Your task to perform on an android device: Search for vegetarian restaurants on Maps Image 0: 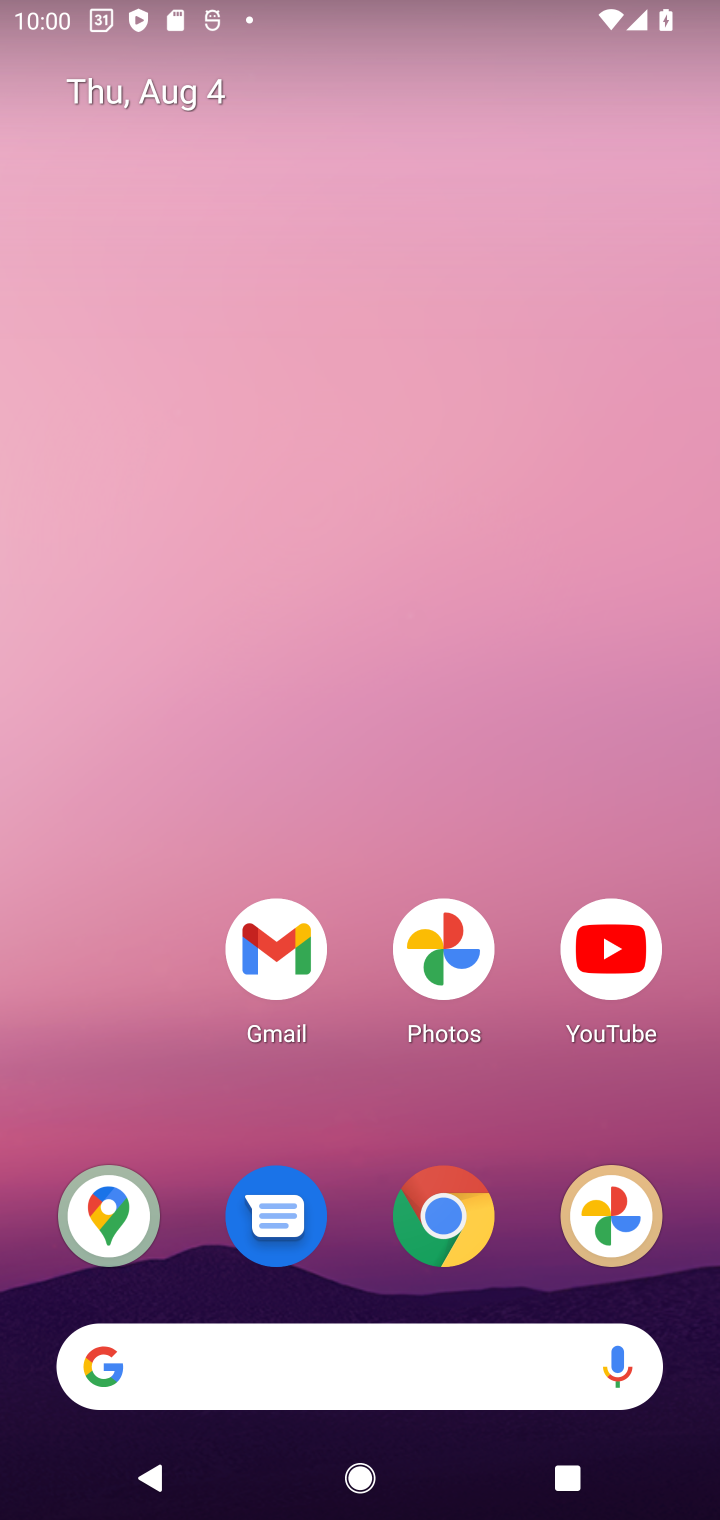
Step 0: click (105, 1217)
Your task to perform on an android device: Search for vegetarian restaurants on Maps Image 1: 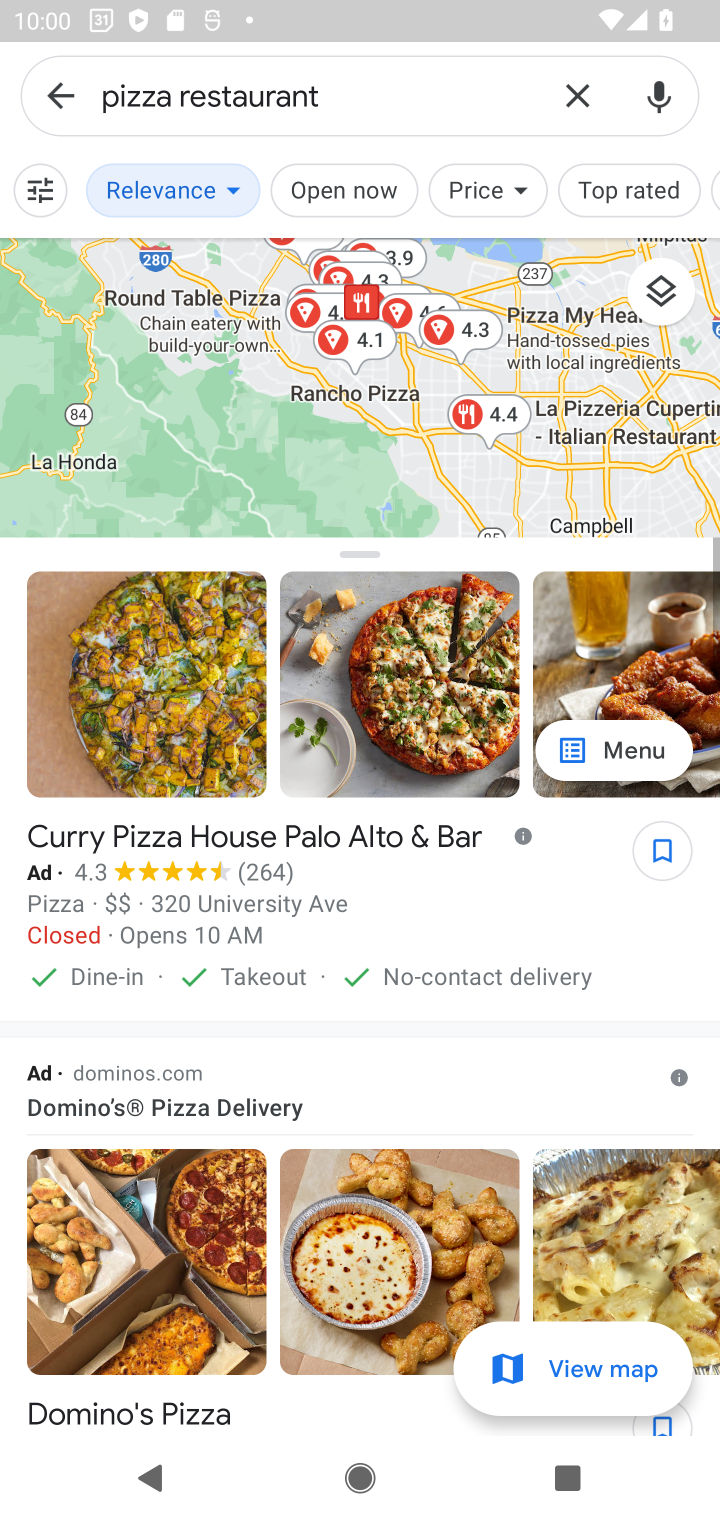
Step 1: click (573, 90)
Your task to perform on an android device: Search for vegetarian restaurants on Maps Image 2: 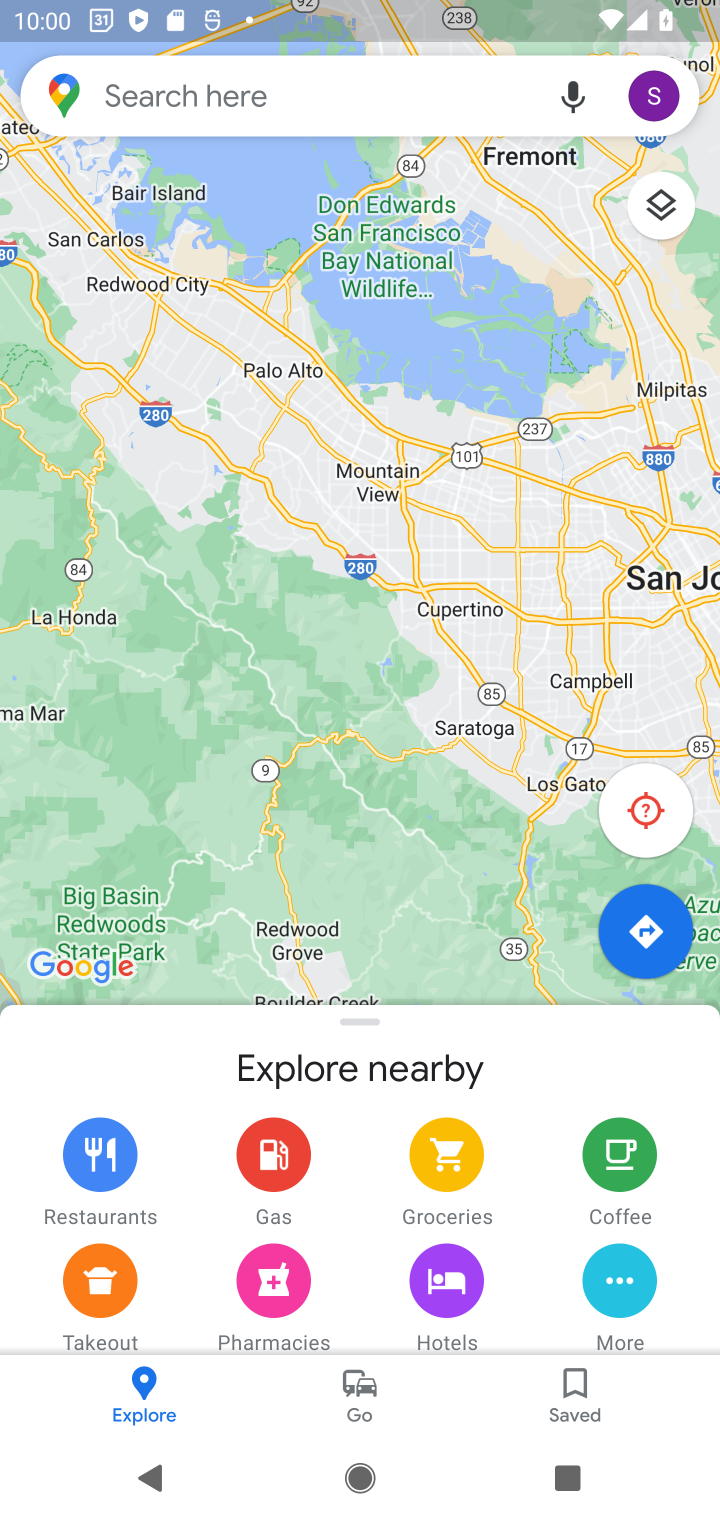
Step 2: click (299, 102)
Your task to perform on an android device: Search for vegetarian restaurants on Maps Image 3: 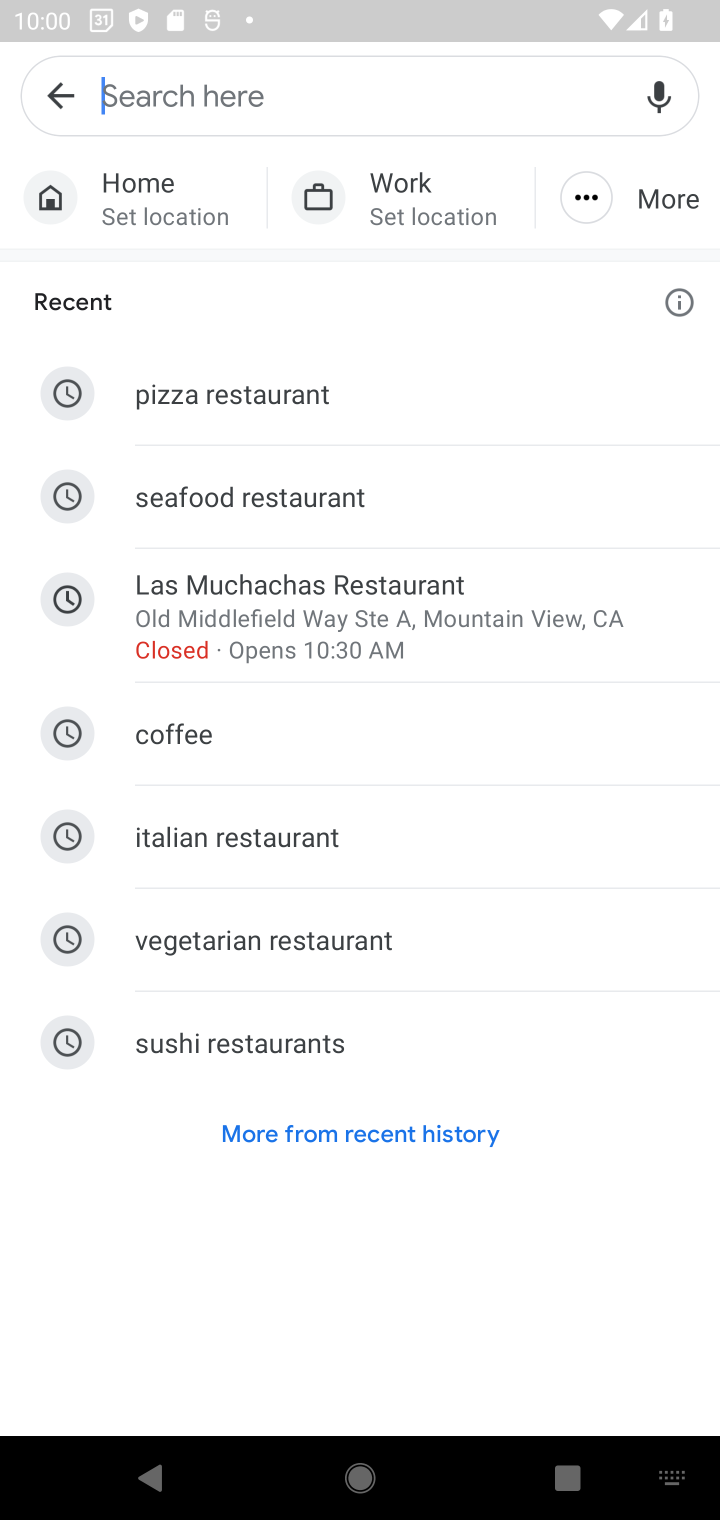
Step 3: type "vegetarian restaurants"
Your task to perform on an android device: Search for vegetarian restaurants on Maps Image 4: 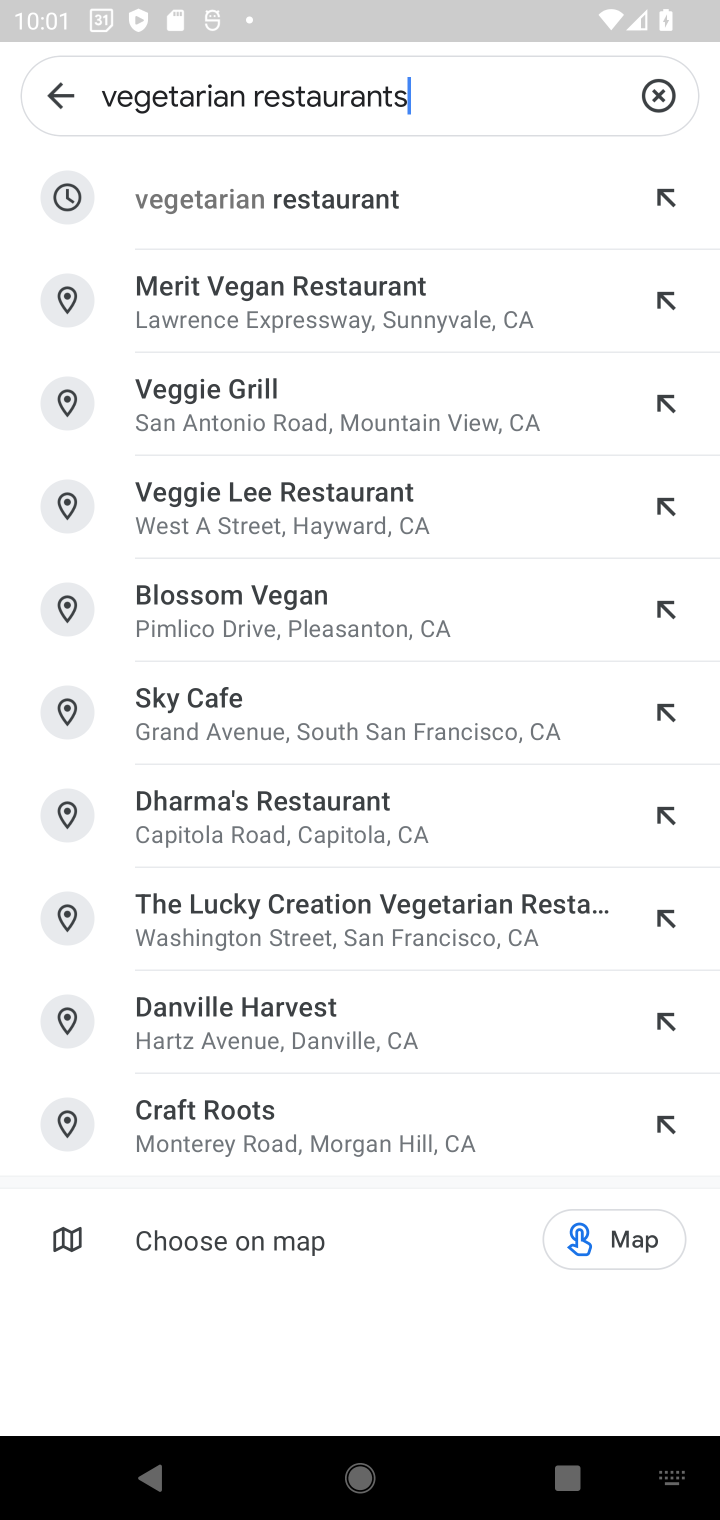
Step 4: click (326, 207)
Your task to perform on an android device: Search for vegetarian restaurants on Maps Image 5: 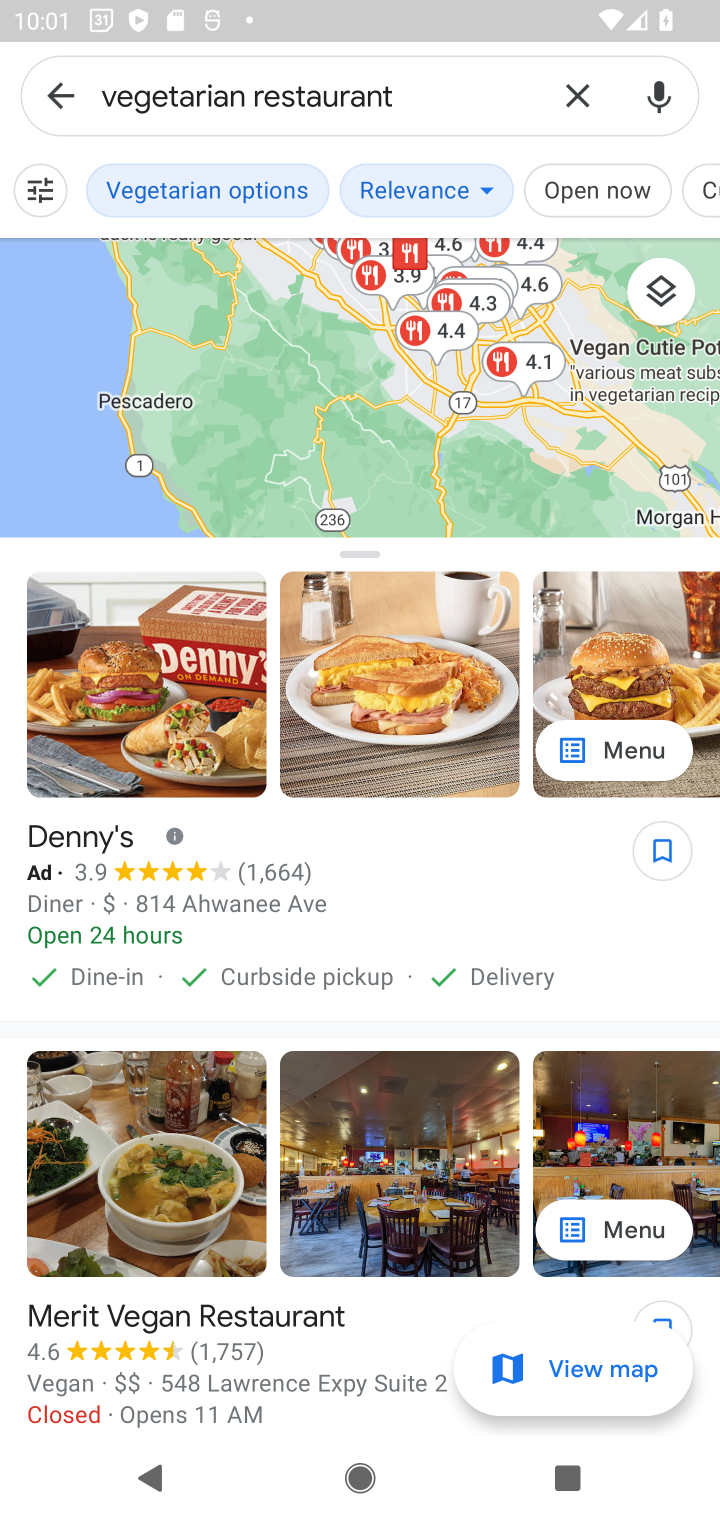
Step 5: task complete